Your task to perform on an android device: toggle wifi Image 0: 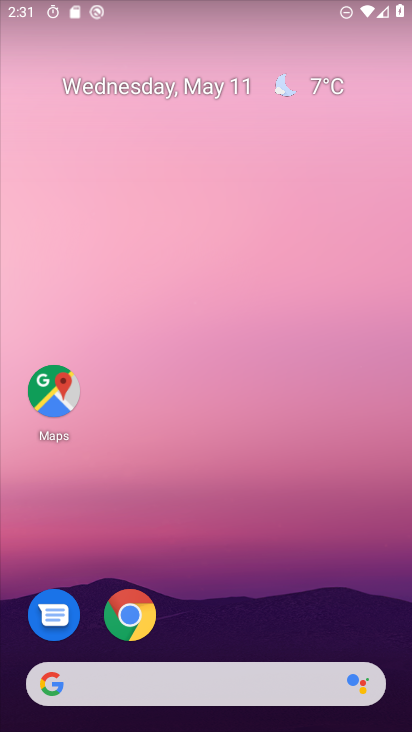
Step 0: drag from (233, 672) to (250, 150)
Your task to perform on an android device: toggle wifi Image 1: 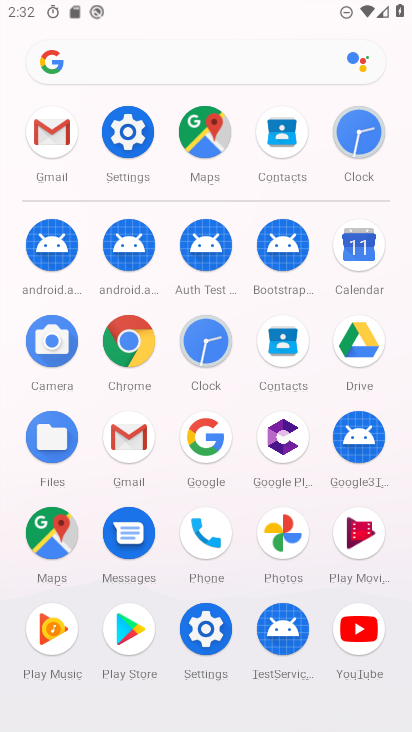
Step 1: click (144, 133)
Your task to perform on an android device: toggle wifi Image 2: 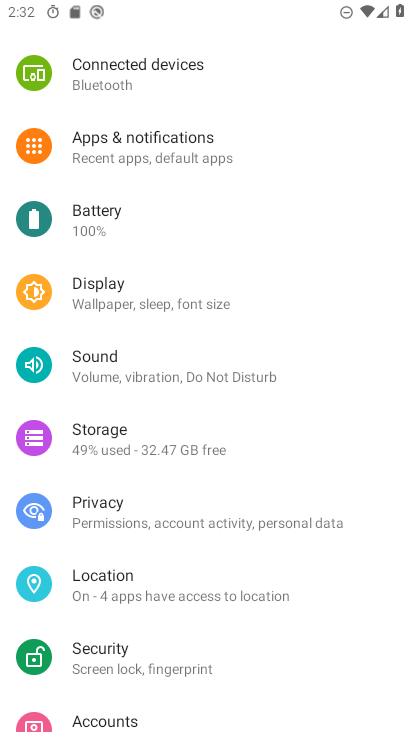
Step 2: drag from (154, 162) to (196, 589)
Your task to perform on an android device: toggle wifi Image 3: 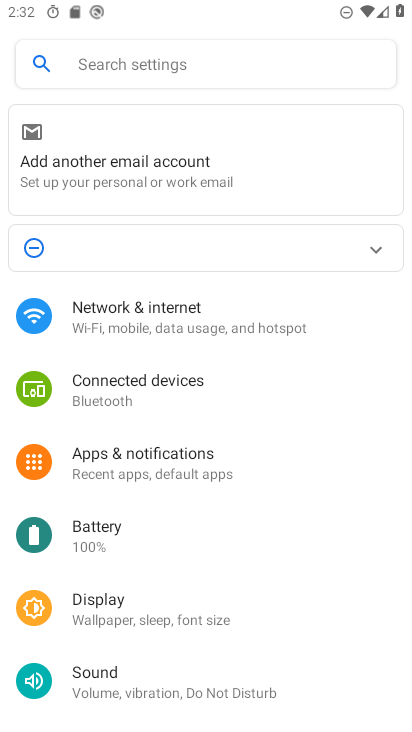
Step 3: click (170, 330)
Your task to perform on an android device: toggle wifi Image 4: 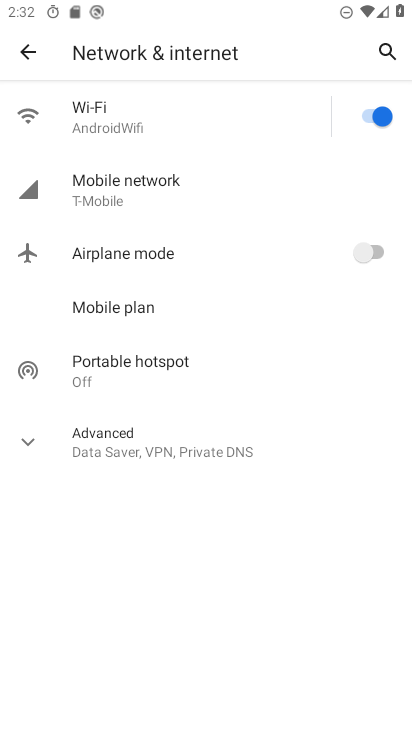
Step 4: click (364, 115)
Your task to perform on an android device: toggle wifi Image 5: 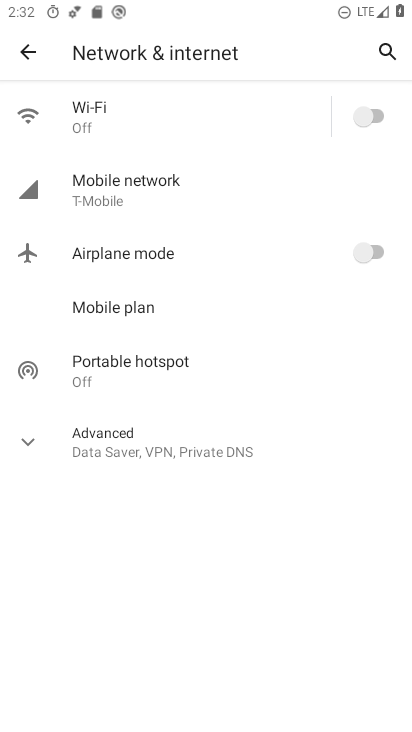
Step 5: task complete